Your task to perform on an android device: turn pop-ups on in chrome Image 0: 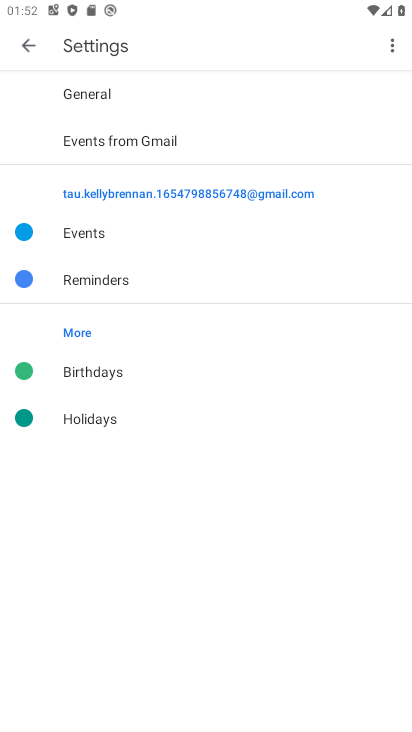
Step 0: press home button
Your task to perform on an android device: turn pop-ups on in chrome Image 1: 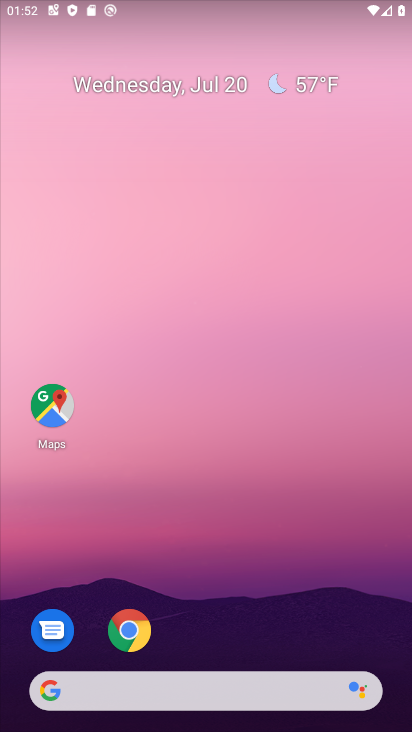
Step 1: drag from (292, 630) to (271, 84)
Your task to perform on an android device: turn pop-ups on in chrome Image 2: 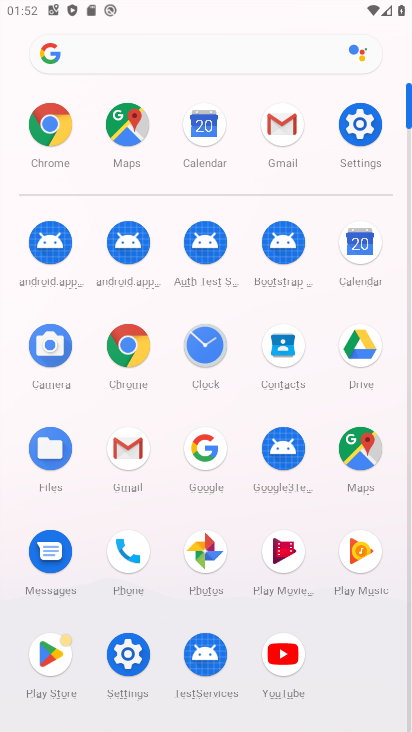
Step 2: click (50, 126)
Your task to perform on an android device: turn pop-ups on in chrome Image 3: 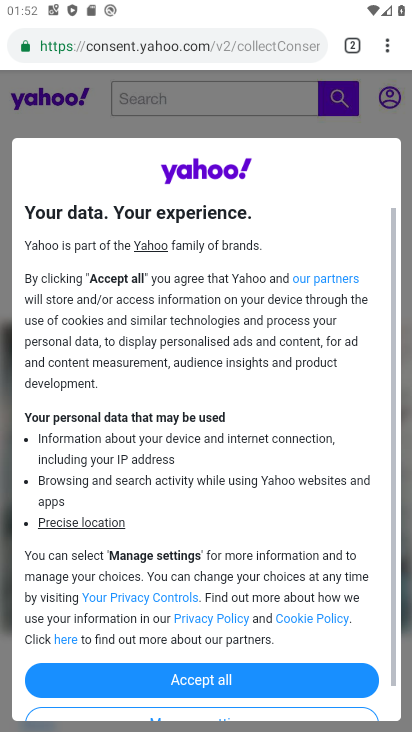
Step 3: click (389, 41)
Your task to perform on an android device: turn pop-ups on in chrome Image 4: 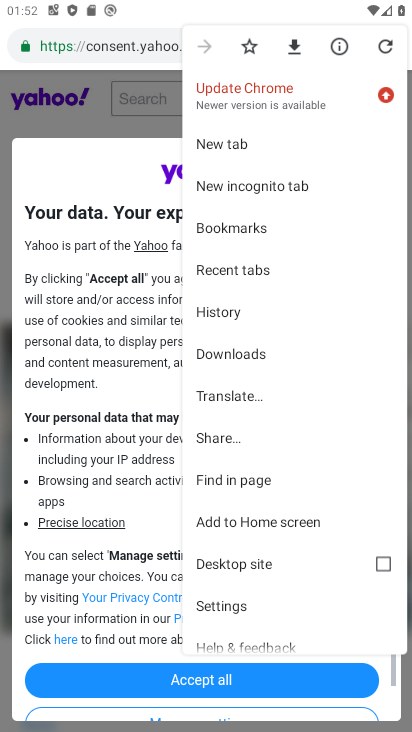
Step 4: drag from (243, 594) to (306, 237)
Your task to perform on an android device: turn pop-ups on in chrome Image 5: 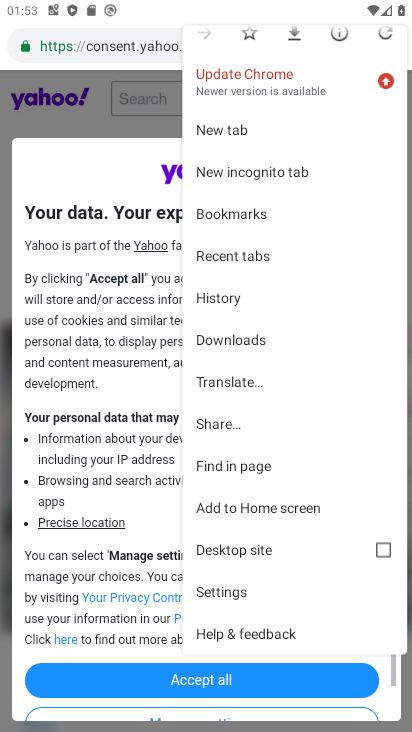
Step 5: click (223, 588)
Your task to perform on an android device: turn pop-ups on in chrome Image 6: 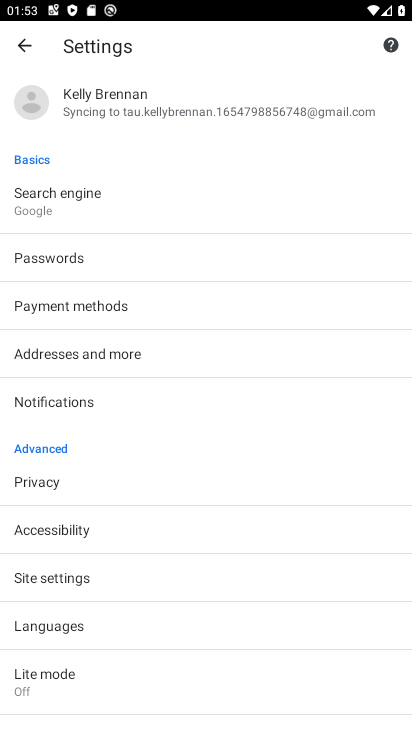
Step 6: click (52, 575)
Your task to perform on an android device: turn pop-ups on in chrome Image 7: 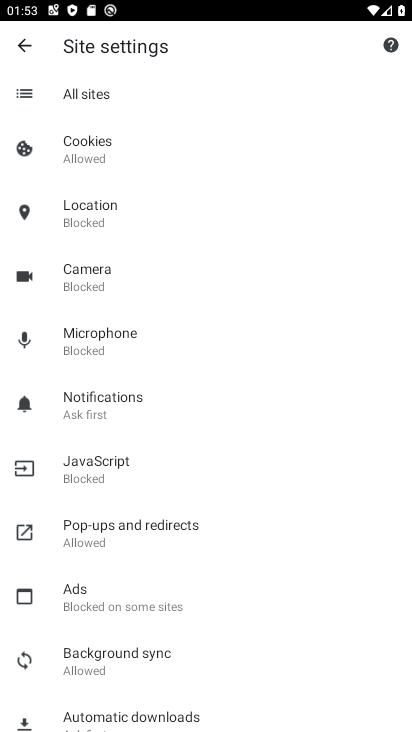
Step 7: click (151, 529)
Your task to perform on an android device: turn pop-ups on in chrome Image 8: 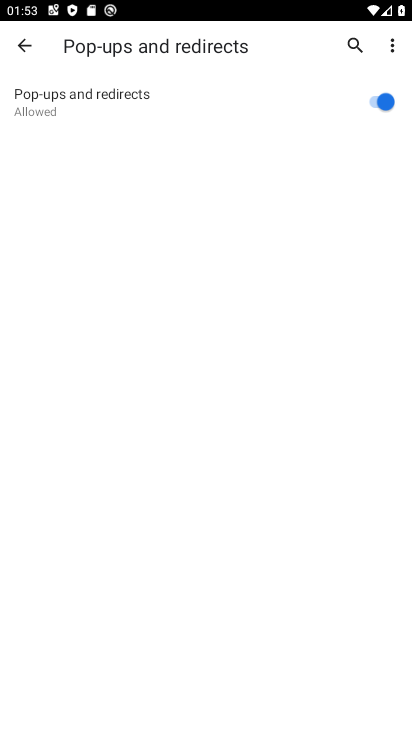
Step 8: task complete